Your task to perform on an android device: turn pop-ups on in chrome Image 0: 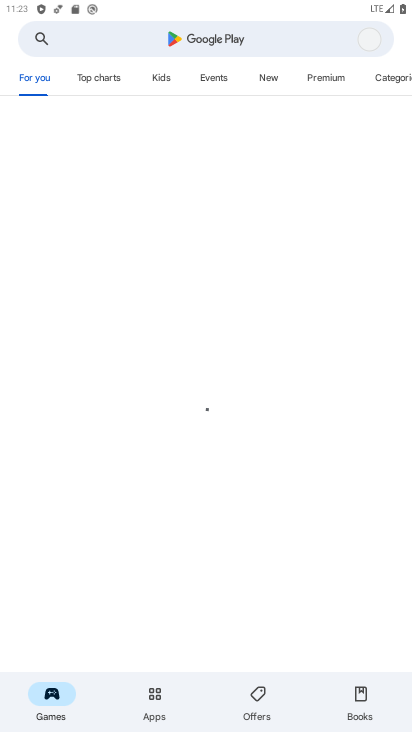
Step 0: press home button
Your task to perform on an android device: turn pop-ups on in chrome Image 1: 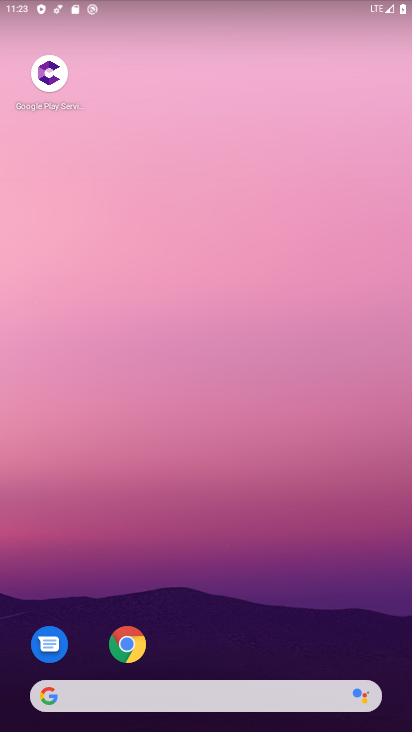
Step 1: click (132, 651)
Your task to perform on an android device: turn pop-ups on in chrome Image 2: 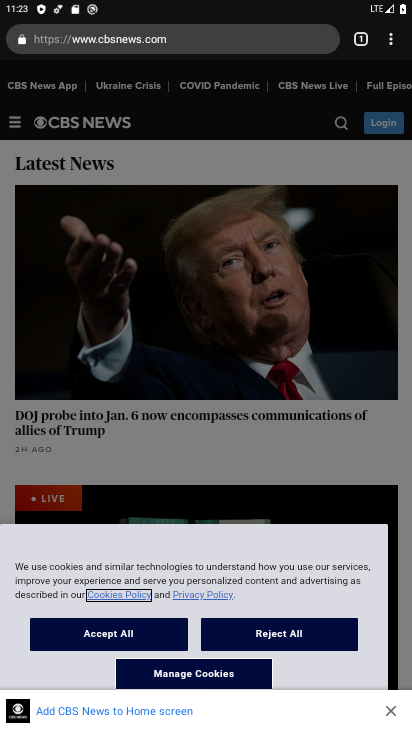
Step 2: click (394, 45)
Your task to perform on an android device: turn pop-ups on in chrome Image 3: 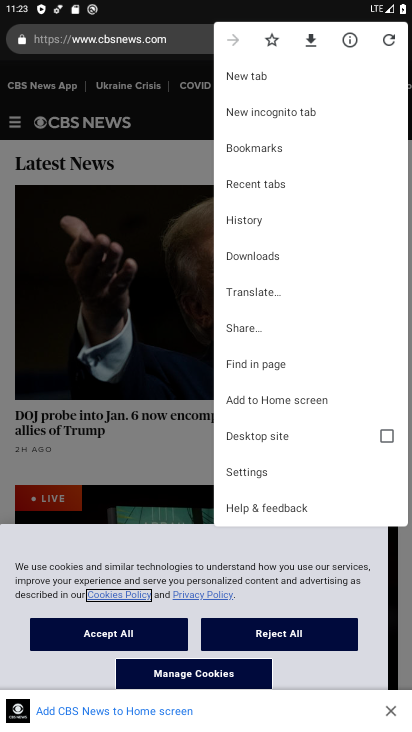
Step 3: click (274, 475)
Your task to perform on an android device: turn pop-ups on in chrome Image 4: 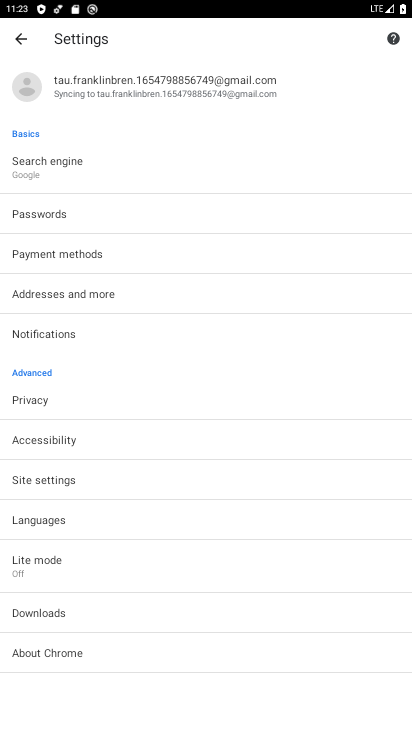
Step 4: click (94, 473)
Your task to perform on an android device: turn pop-ups on in chrome Image 5: 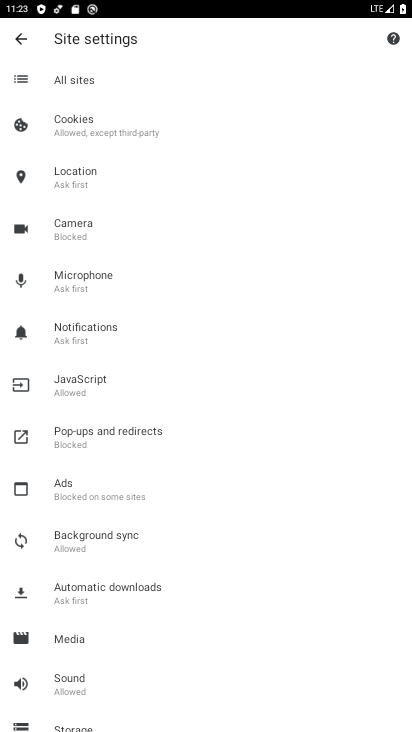
Step 5: click (124, 442)
Your task to perform on an android device: turn pop-ups on in chrome Image 6: 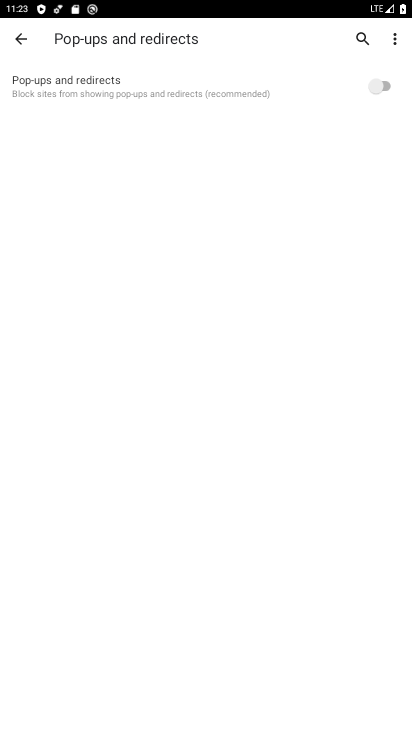
Step 6: click (384, 88)
Your task to perform on an android device: turn pop-ups on in chrome Image 7: 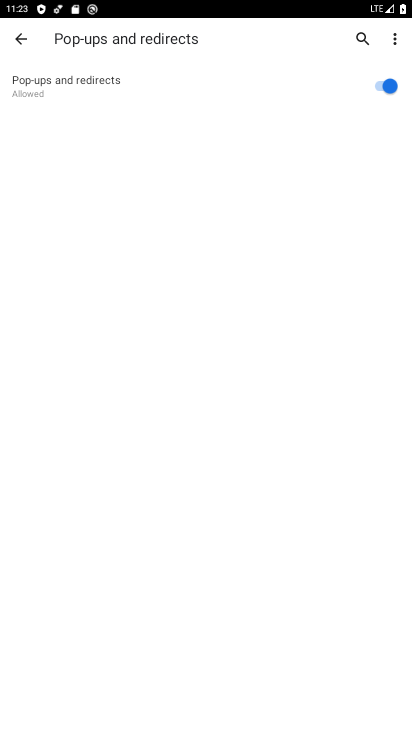
Step 7: task complete